Your task to perform on an android device: Open Youtube and go to the subscriptions tab Image 0: 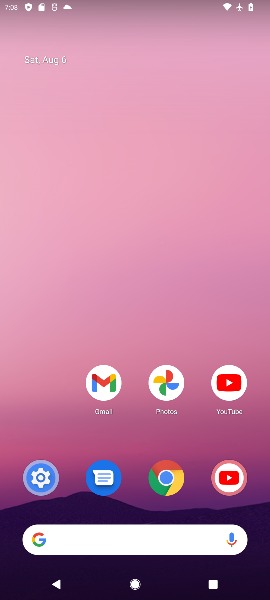
Step 0: press home button
Your task to perform on an android device: Open Youtube and go to the subscriptions tab Image 1: 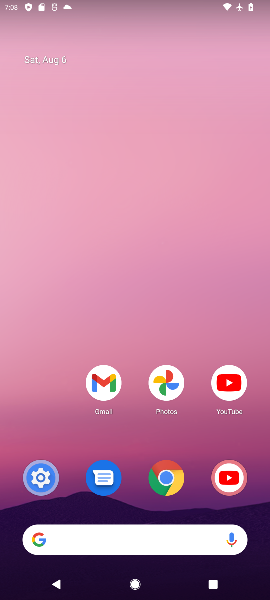
Step 1: click (226, 381)
Your task to perform on an android device: Open Youtube and go to the subscriptions tab Image 2: 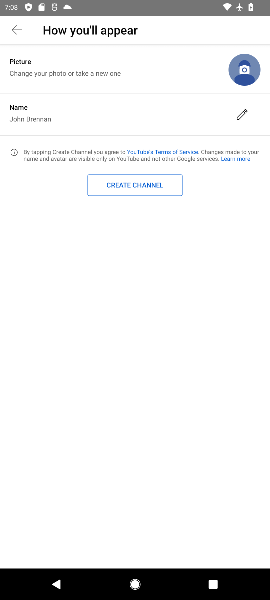
Step 2: click (14, 28)
Your task to perform on an android device: Open Youtube and go to the subscriptions tab Image 3: 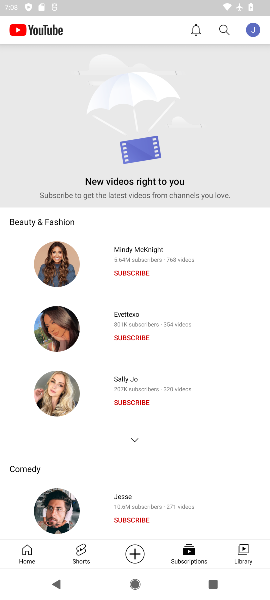
Step 3: click (177, 548)
Your task to perform on an android device: Open Youtube and go to the subscriptions tab Image 4: 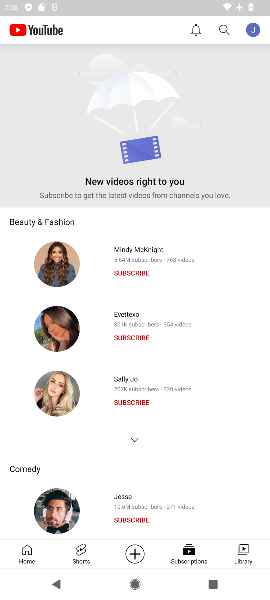
Step 4: click (182, 550)
Your task to perform on an android device: Open Youtube and go to the subscriptions tab Image 5: 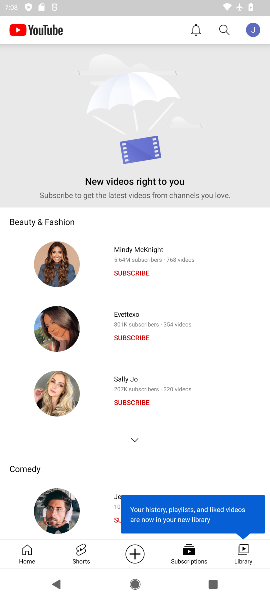
Step 5: task complete